Your task to perform on an android device: Open the calendar app, open the side menu, and click the "Day" option Image 0: 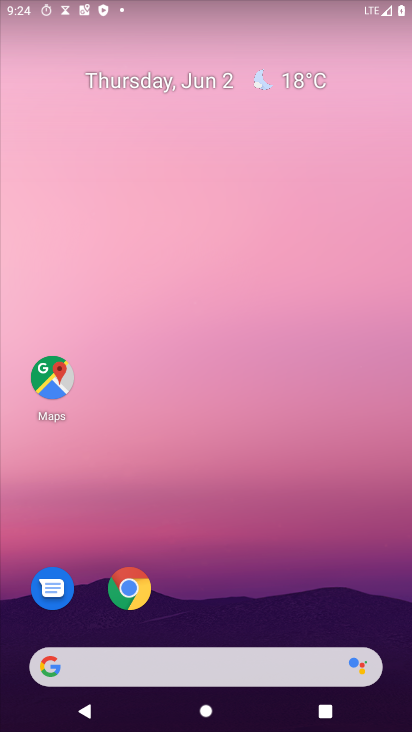
Step 0: drag from (229, 608) to (255, 102)
Your task to perform on an android device: Open the calendar app, open the side menu, and click the "Day" option Image 1: 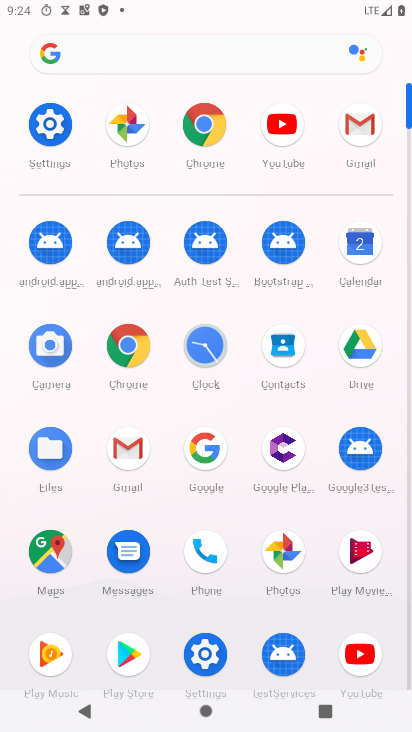
Step 1: click (353, 235)
Your task to perform on an android device: Open the calendar app, open the side menu, and click the "Day" option Image 2: 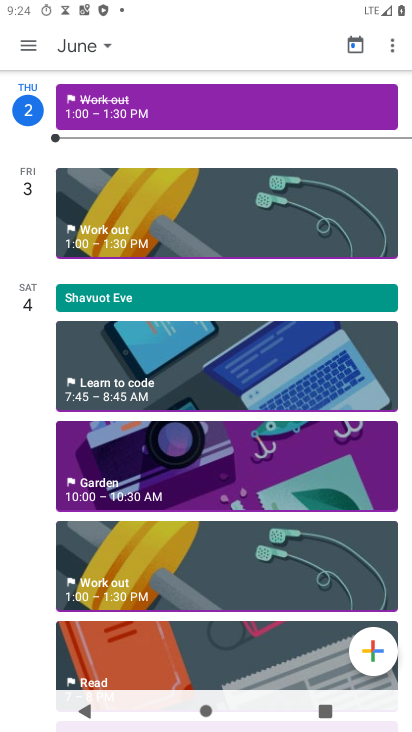
Step 2: click (30, 39)
Your task to perform on an android device: Open the calendar app, open the side menu, and click the "Day" option Image 3: 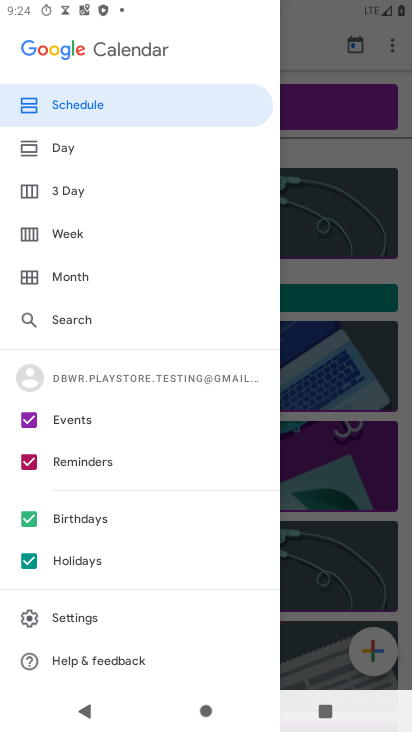
Step 3: click (85, 144)
Your task to perform on an android device: Open the calendar app, open the side menu, and click the "Day" option Image 4: 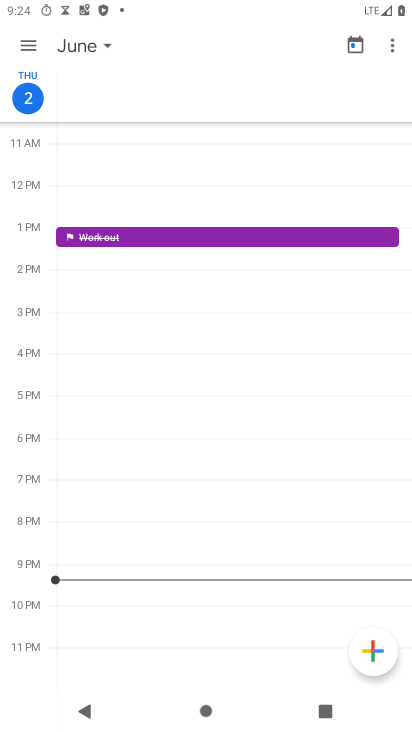
Step 4: click (27, 50)
Your task to perform on an android device: Open the calendar app, open the side menu, and click the "Day" option Image 5: 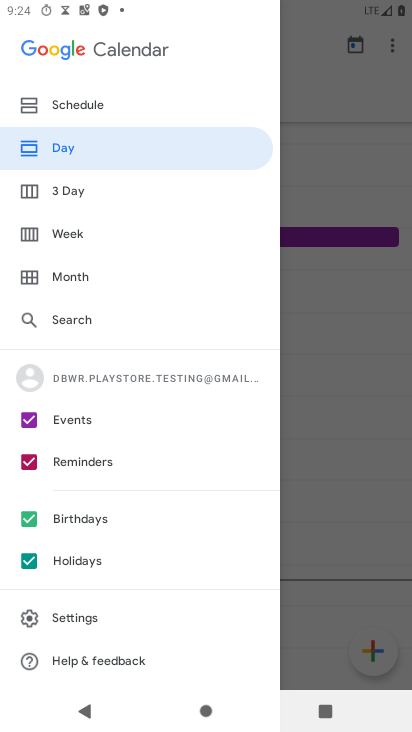
Step 5: click (62, 106)
Your task to perform on an android device: Open the calendar app, open the side menu, and click the "Day" option Image 6: 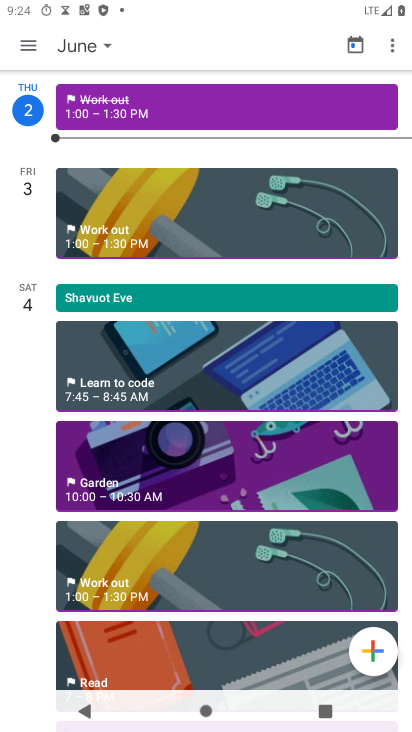
Step 6: click (20, 39)
Your task to perform on an android device: Open the calendar app, open the side menu, and click the "Day" option Image 7: 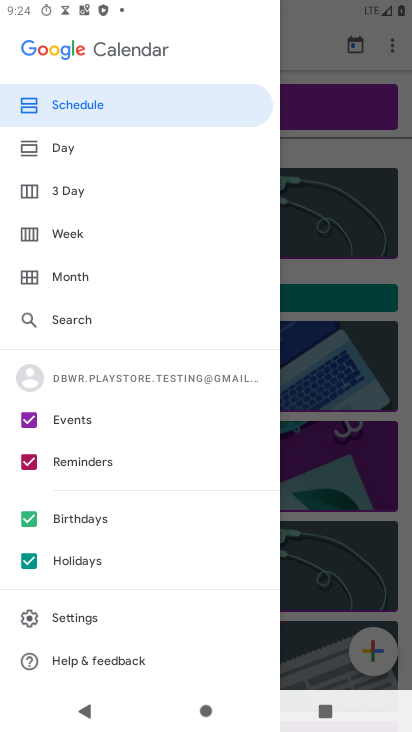
Step 7: click (83, 138)
Your task to perform on an android device: Open the calendar app, open the side menu, and click the "Day" option Image 8: 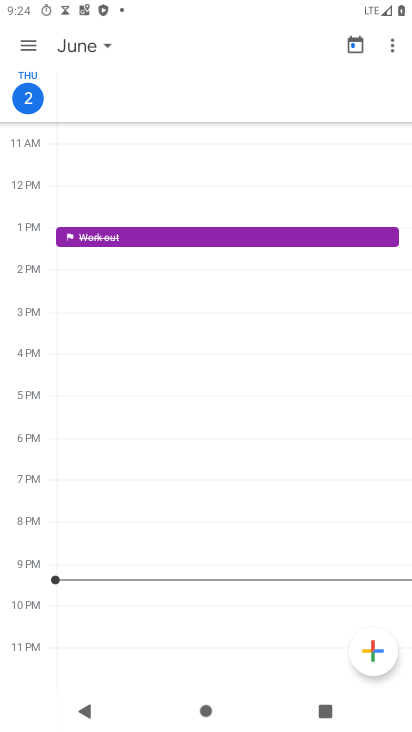
Step 8: task complete